Your task to perform on an android device: turn off location history Image 0: 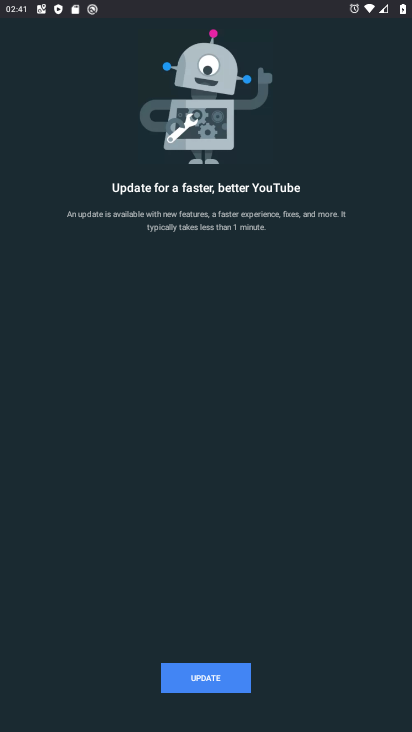
Step 0: press home button
Your task to perform on an android device: turn off location history Image 1: 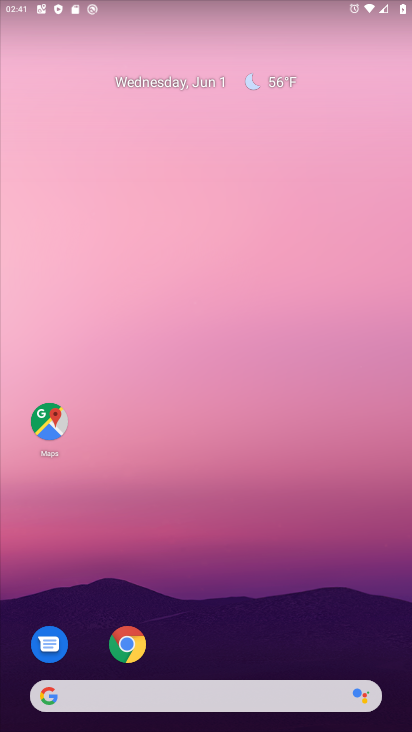
Step 1: drag from (141, 576) to (143, 292)
Your task to perform on an android device: turn off location history Image 2: 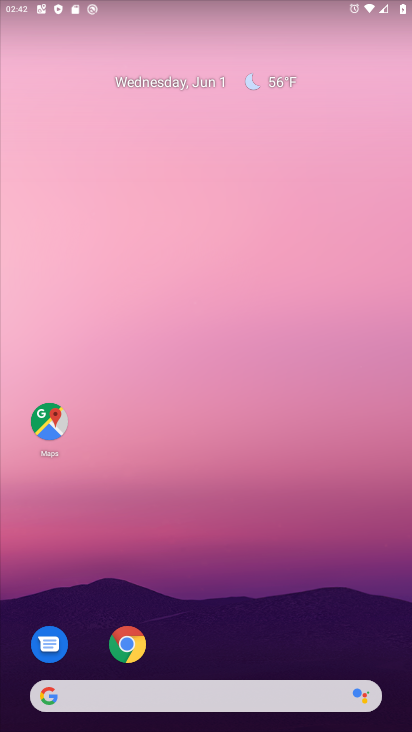
Step 2: drag from (235, 675) to (168, 137)
Your task to perform on an android device: turn off location history Image 3: 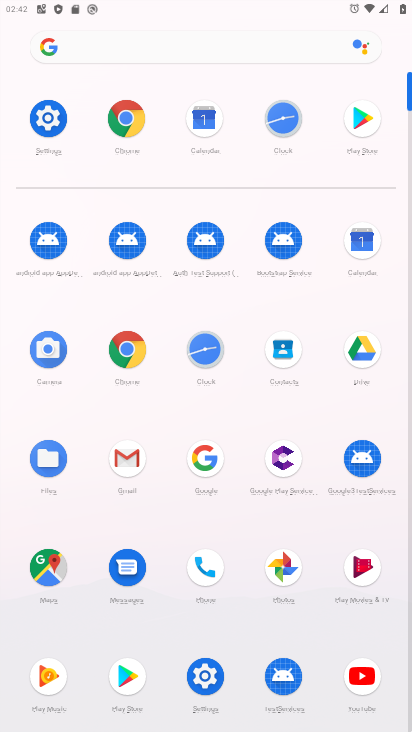
Step 3: click (41, 110)
Your task to perform on an android device: turn off location history Image 4: 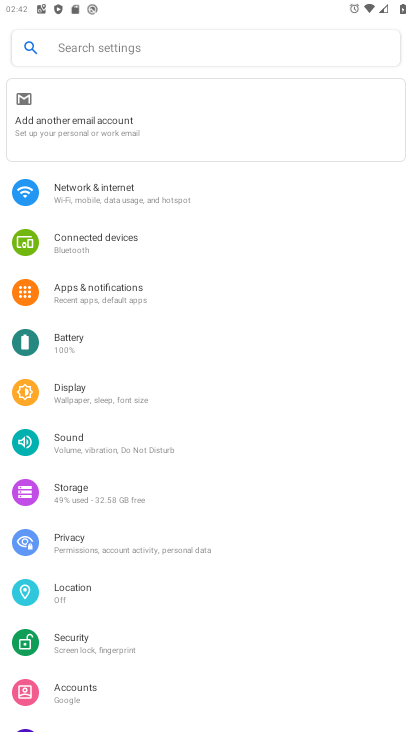
Step 4: drag from (173, 677) to (175, 229)
Your task to perform on an android device: turn off location history Image 5: 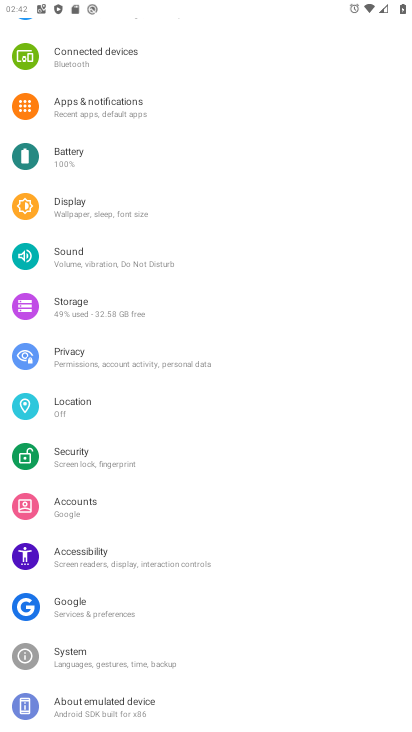
Step 5: click (71, 412)
Your task to perform on an android device: turn off location history Image 6: 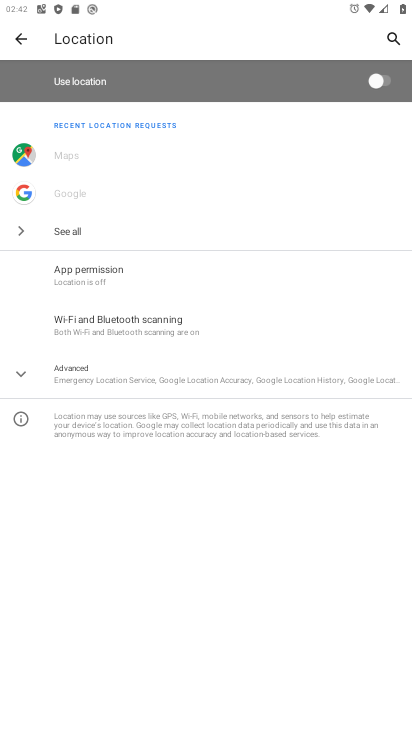
Step 6: click (143, 385)
Your task to perform on an android device: turn off location history Image 7: 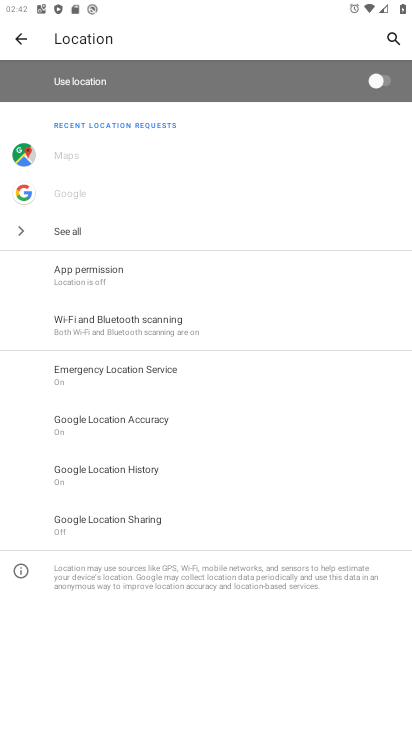
Step 7: click (123, 470)
Your task to perform on an android device: turn off location history Image 8: 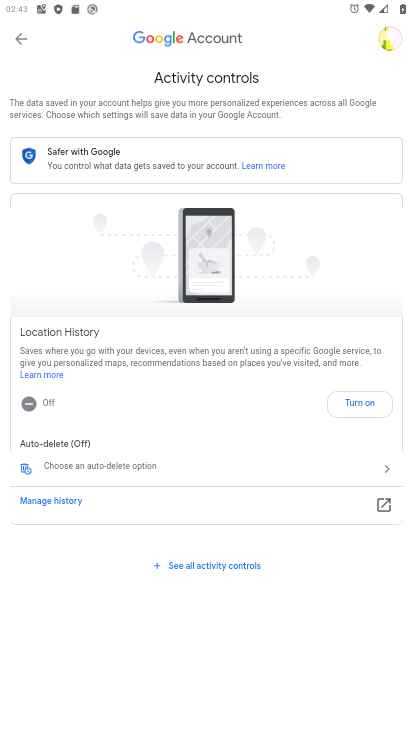
Step 8: click (340, 402)
Your task to perform on an android device: turn off location history Image 9: 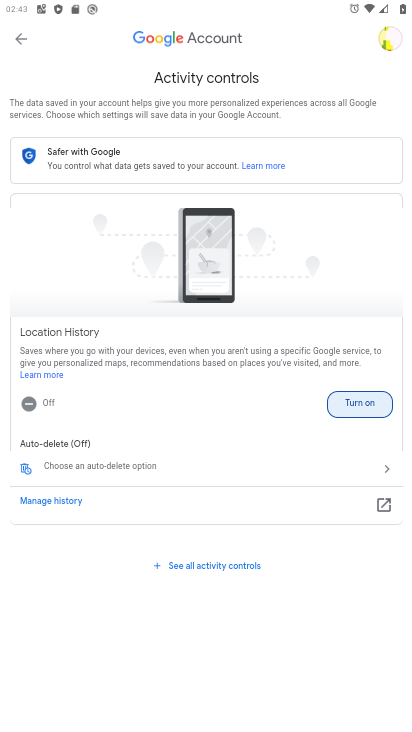
Step 9: click (354, 405)
Your task to perform on an android device: turn off location history Image 10: 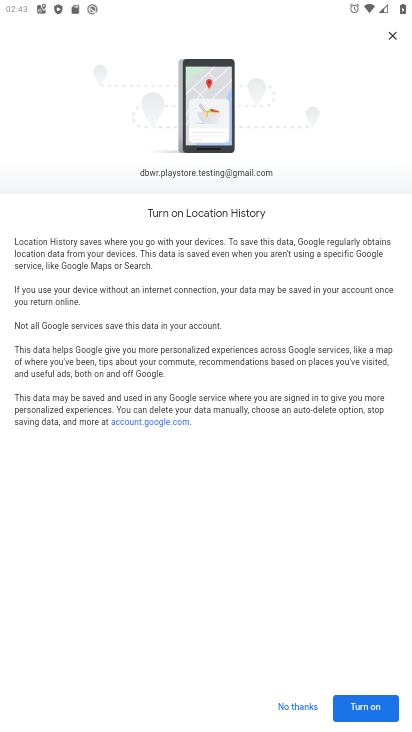
Step 10: click (374, 704)
Your task to perform on an android device: turn off location history Image 11: 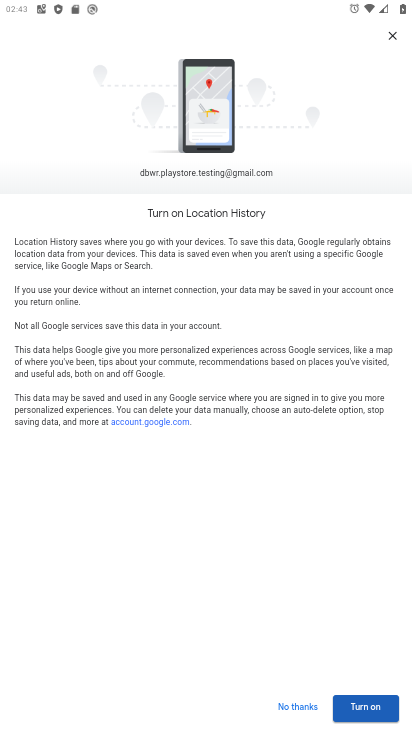
Step 11: click (361, 711)
Your task to perform on an android device: turn off location history Image 12: 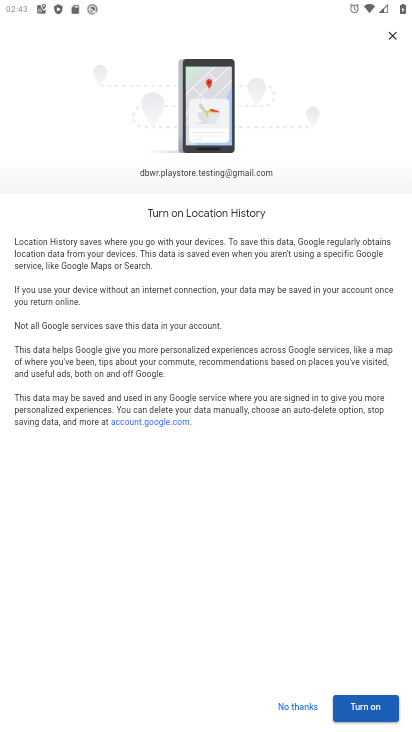
Step 12: click (372, 710)
Your task to perform on an android device: turn off location history Image 13: 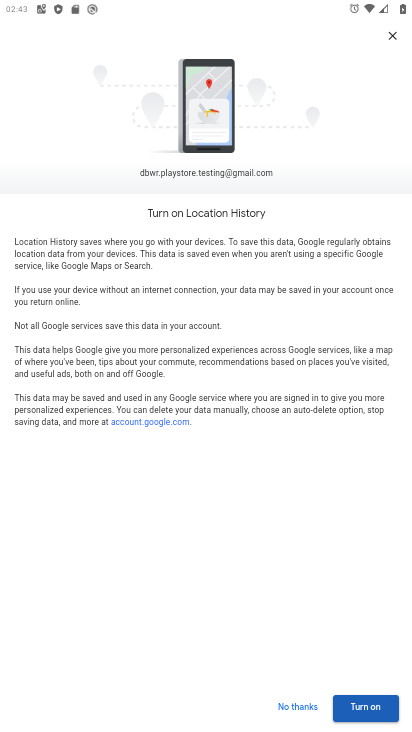
Step 13: click (371, 709)
Your task to perform on an android device: turn off location history Image 14: 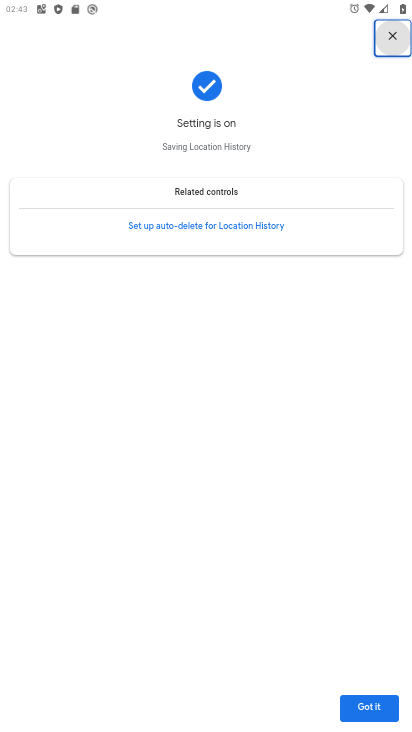
Step 14: click (371, 709)
Your task to perform on an android device: turn off location history Image 15: 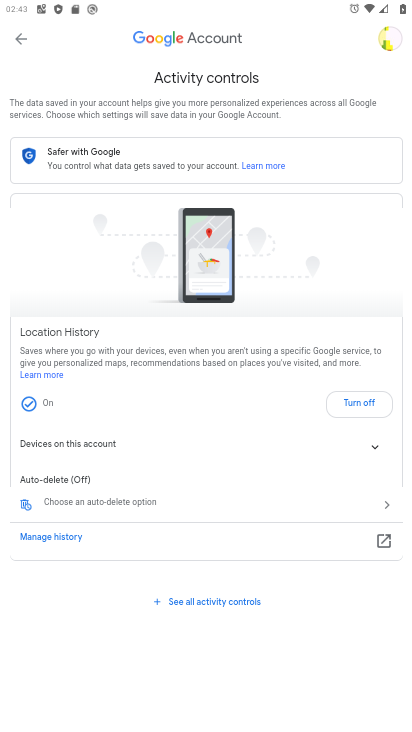
Step 15: task complete